Your task to perform on an android device: Turn on the flashlight Image 0: 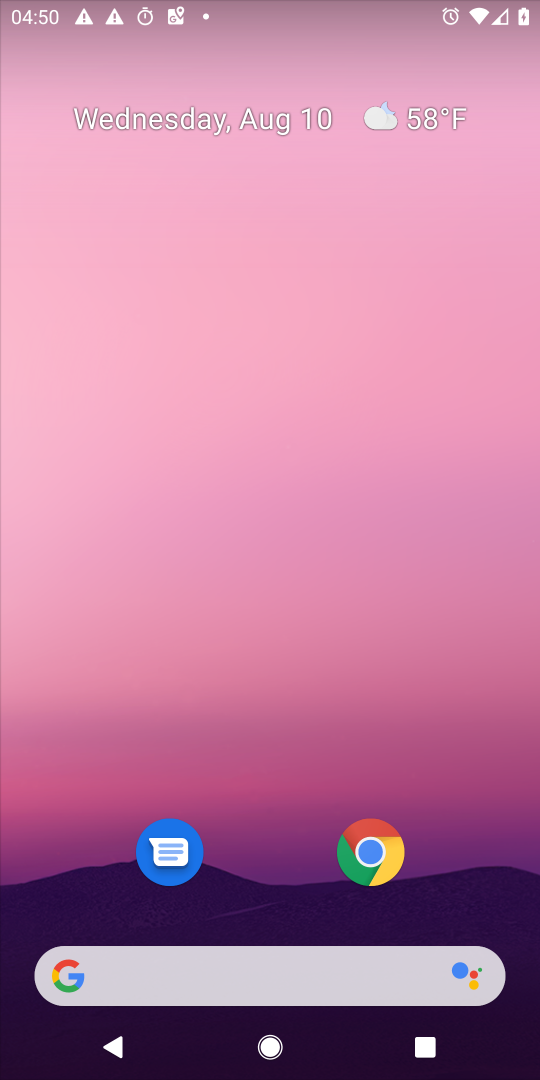
Step 0: drag from (234, 868) to (352, 140)
Your task to perform on an android device: Turn on the flashlight Image 1: 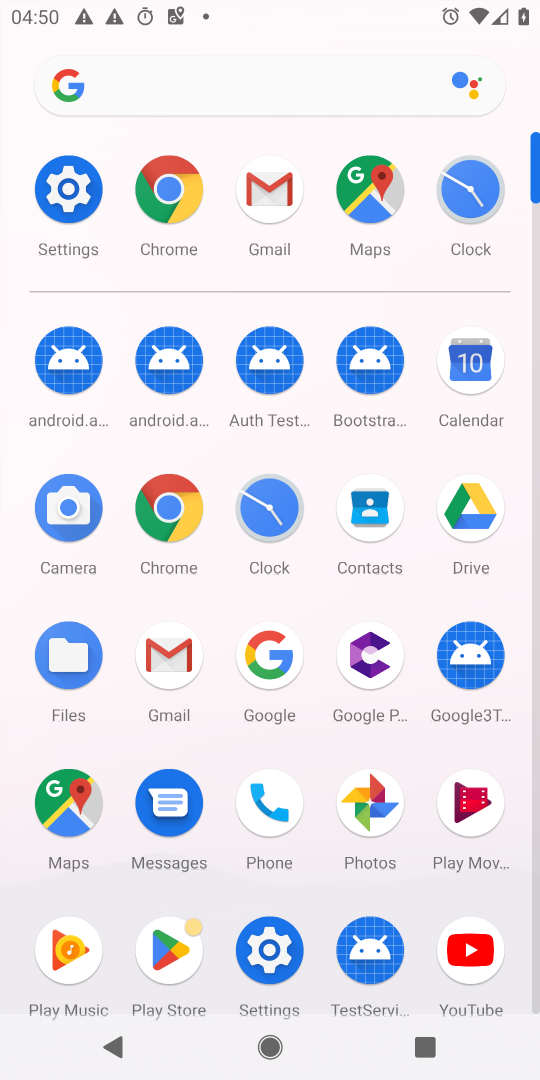
Step 1: click (289, 947)
Your task to perform on an android device: Turn on the flashlight Image 2: 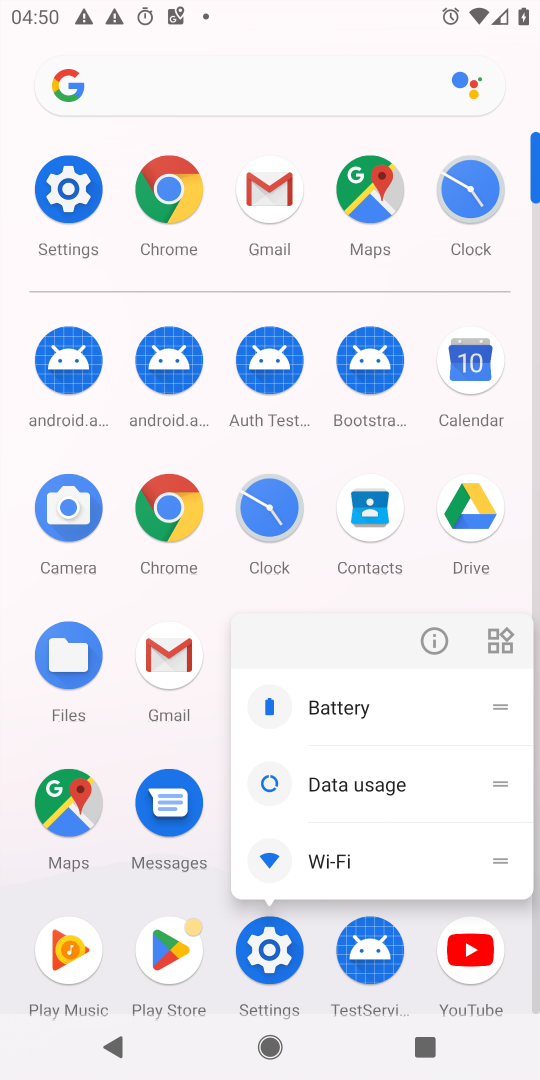
Step 2: click (277, 954)
Your task to perform on an android device: Turn on the flashlight Image 3: 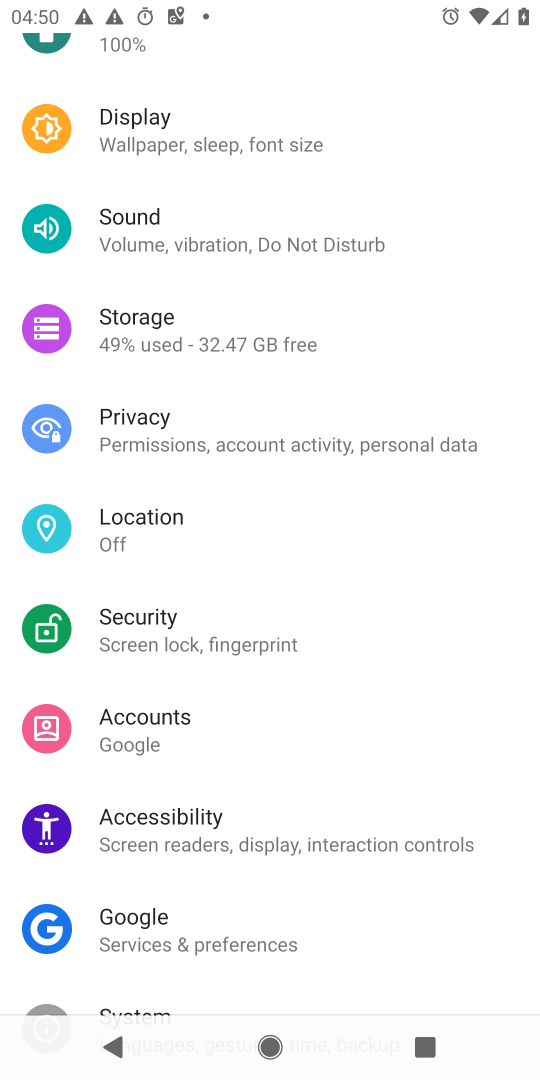
Step 3: click (285, 147)
Your task to perform on an android device: Turn on the flashlight Image 4: 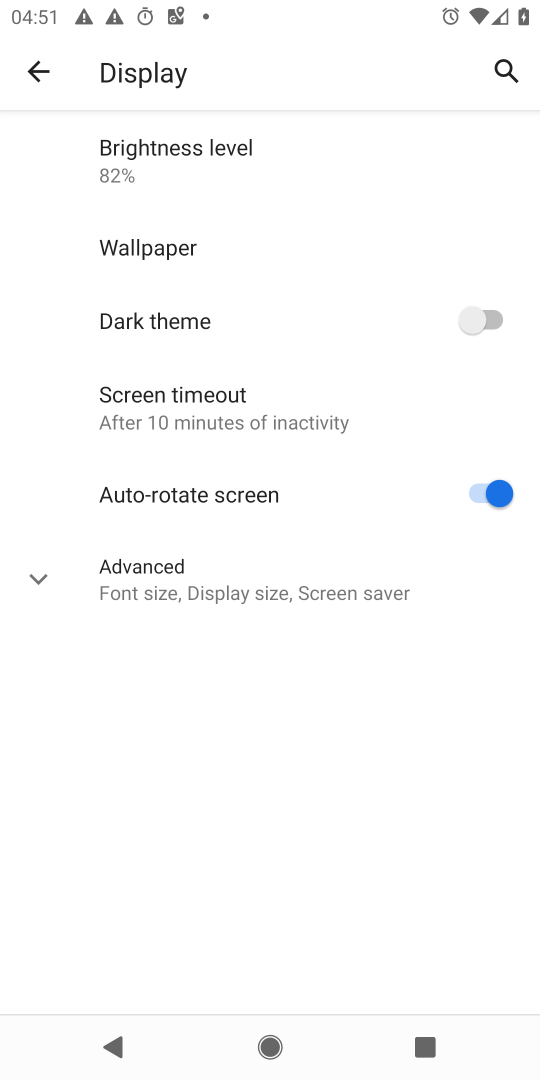
Step 4: task complete